Your task to perform on an android device: Go to eBay Image 0: 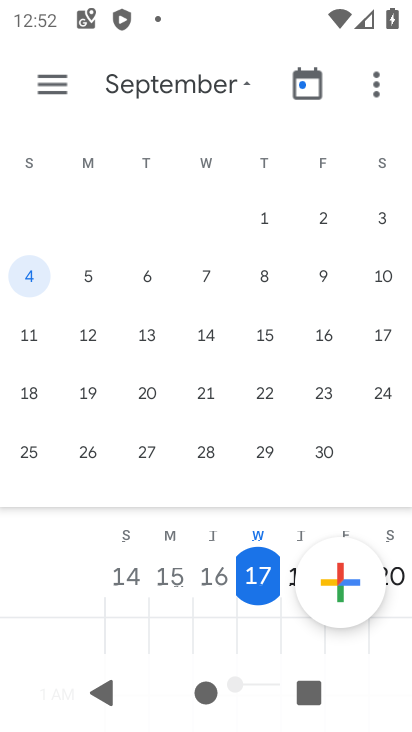
Step 0: press home button
Your task to perform on an android device: Go to eBay Image 1: 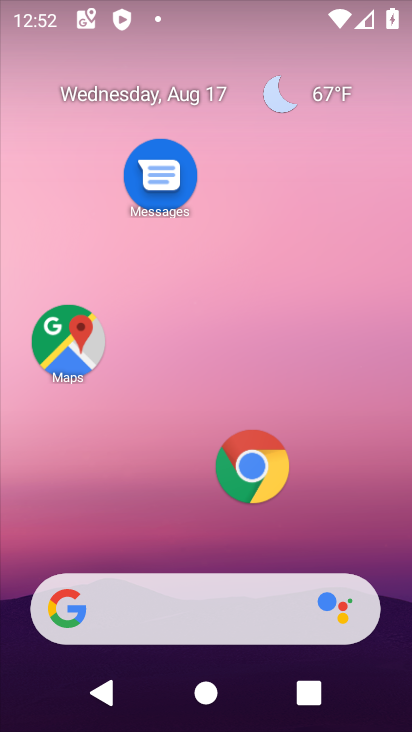
Step 1: click (257, 460)
Your task to perform on an android device: Go to eBay Image 2: 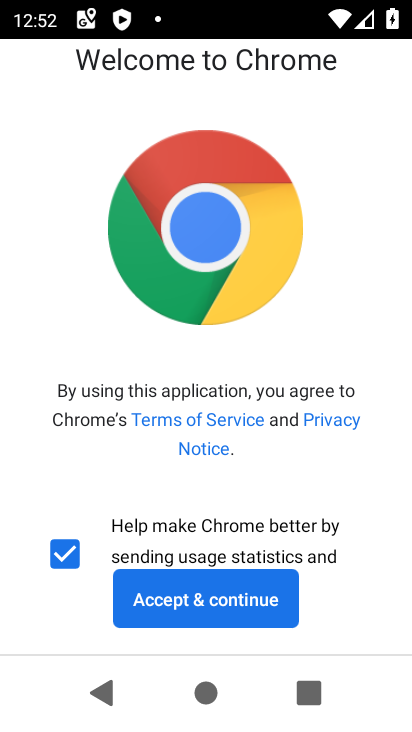
Step 2: click (196, 593)
Your task to perform on an android device: Go to eBay Image 3: 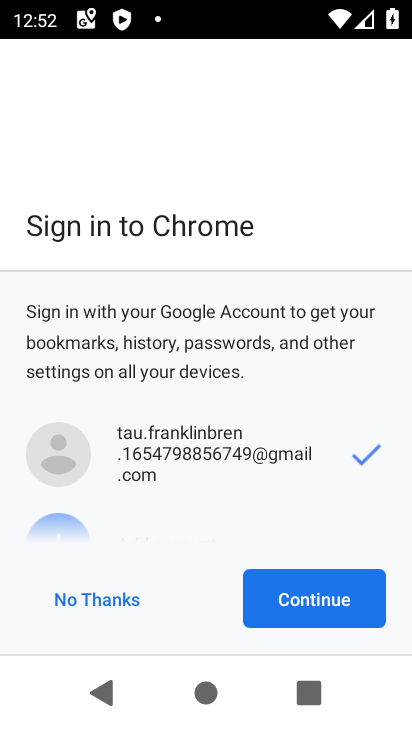
Step 3: click (330, 597)
Your task to perform on an android device: Go to eBay Image 4: 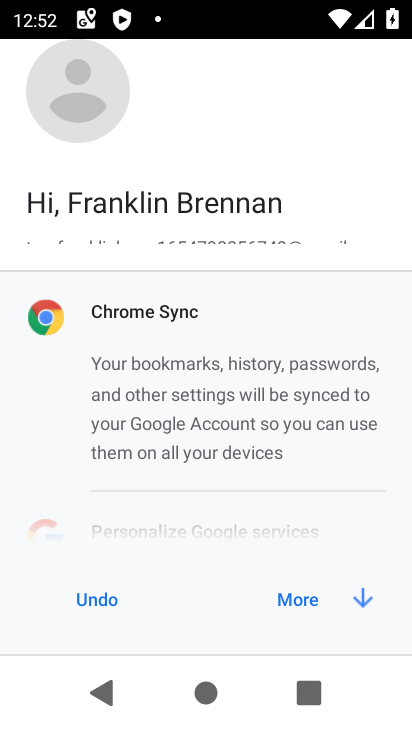
Step 4: click (330, 597)
Your task to perform on an android device: Go to eBay Image 5: 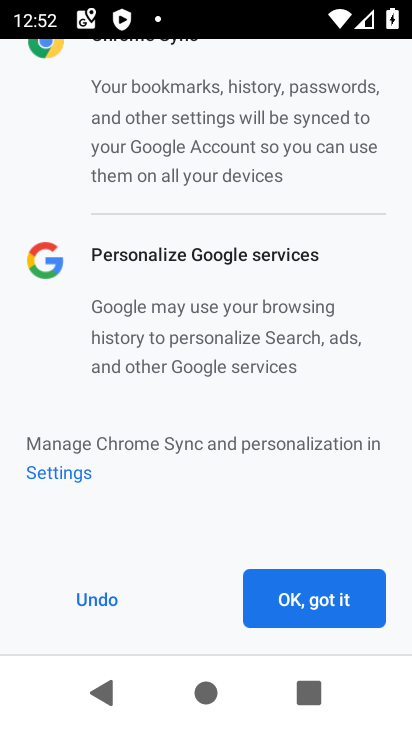
Step 5: click (330, 597)
Your task to perform on an android device: Go to eBay Image 6: 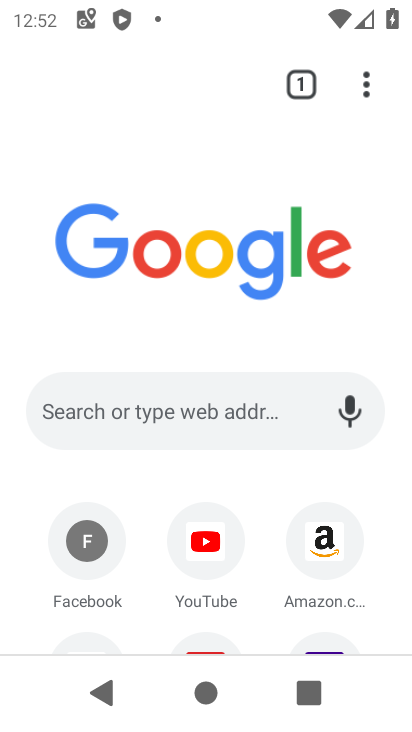
Step 6: drag from (252, 620) to (221, 258)
Your task to perform on an android device: Go to eBay Image 7: 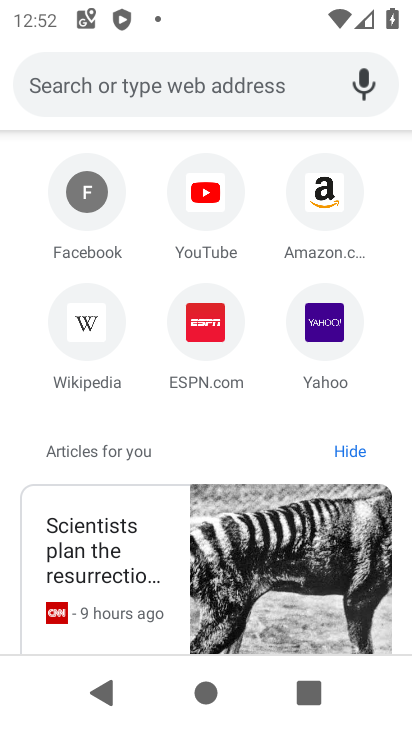
Step 7: click (140, 83)
Your task to perform on an android device: Go to eBay Image 8: 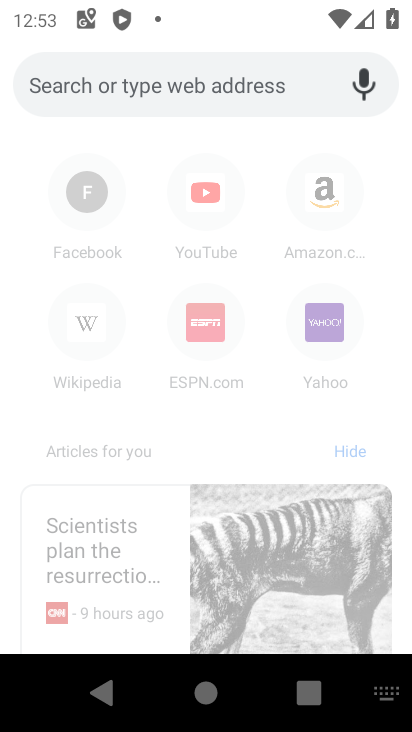
Step 8: type "www.ebay.com"
Your task to perform on an android device: Go to eBay Image 9: 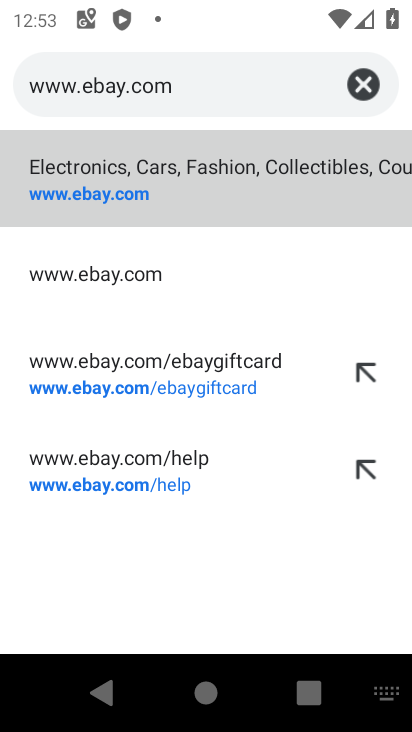
Step 9: click (117, 196)
Your task to perform on an android device: Go to eBay Image 10: 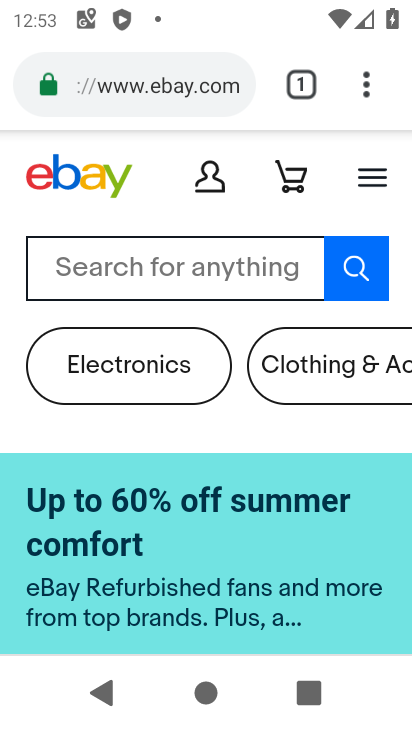
Step 10: task complete